Your task to perform on an android device: Open the phone app and click the voicemail tab. Image 0: 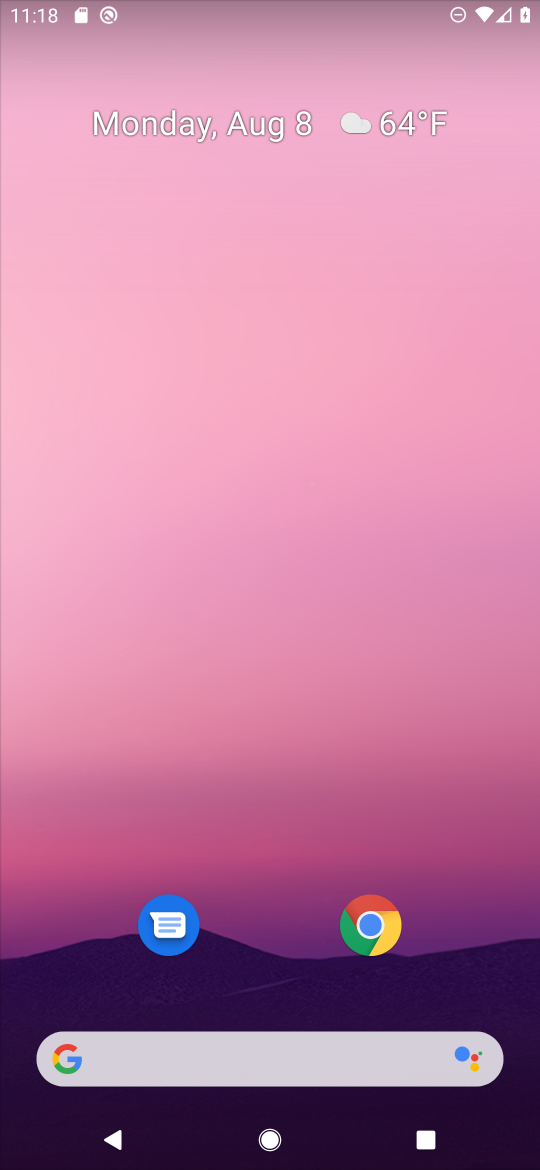
Step 0: drag from (257, 910) to (342, 97)
Your task to perform on an android device: Open the phone app and click the voicemail tab. Image 1: 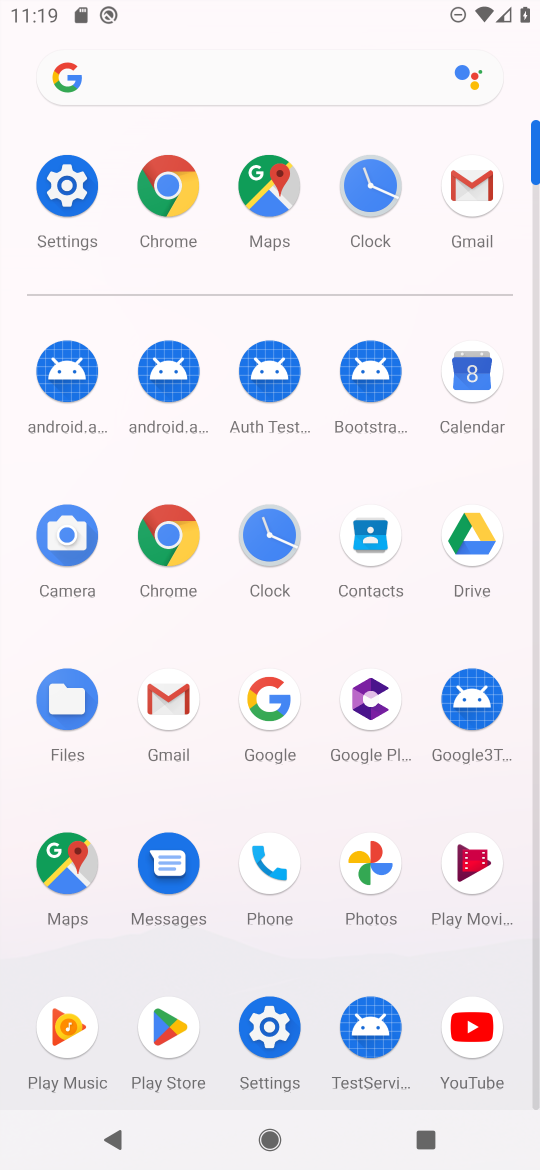
Step 1: click (270, 852)
Your task to perform on an android device: Open the phone app and click the voicemail tab. Image 2: 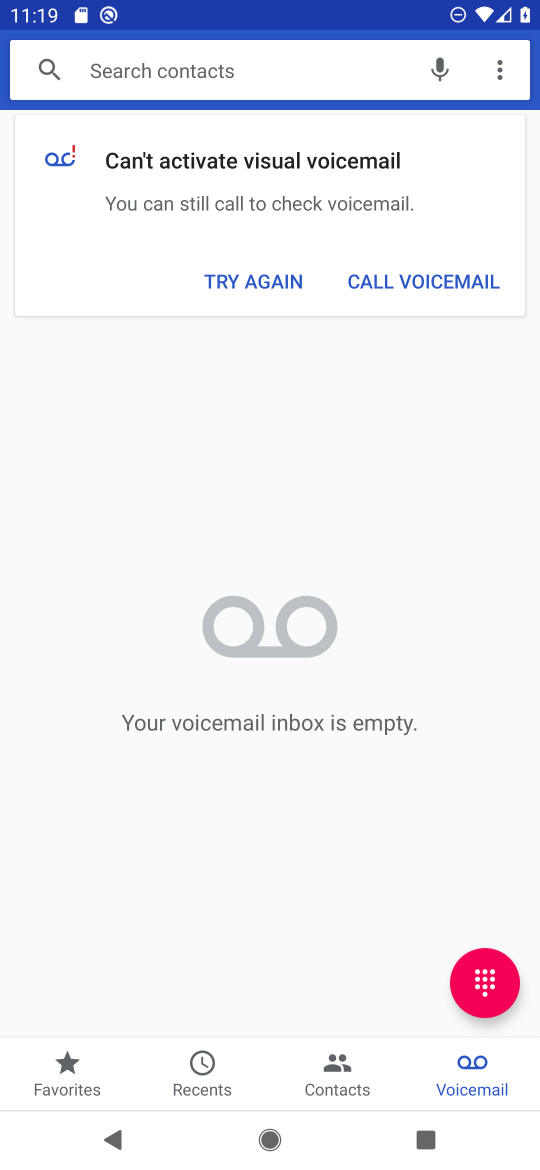
Step 2: click (438, 1080)
Your task to perform on an android device: Open the phone app and click the voicemail tab. Image 3: 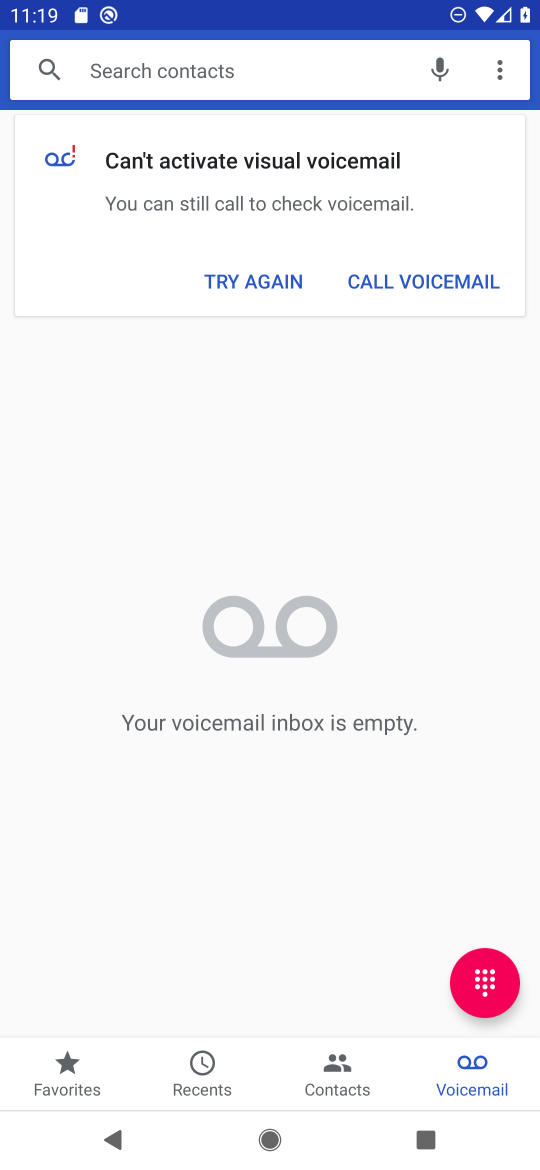
Step 3: task complete